Your task to perform on an android device: turn on bluetooth scan Image 0: 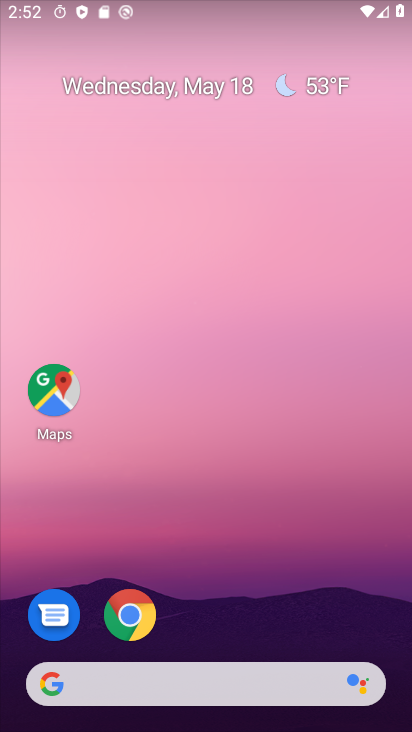
Step 0: drag from (200, 645) to (281, 205)
Your task to perform on an android device: turn on bluetooth scan Image 1: 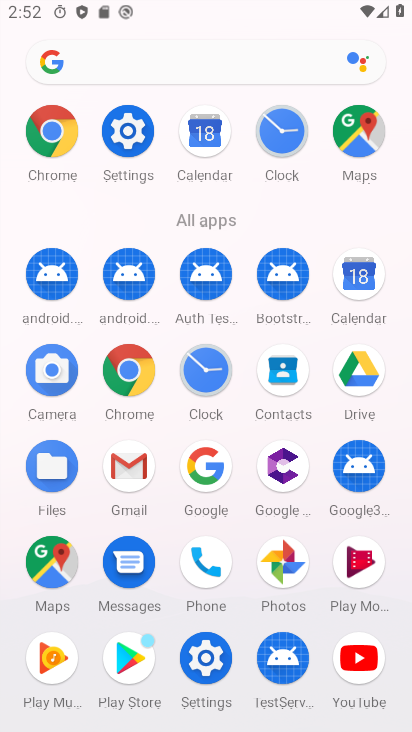
Step 1: click (207, 668)
Your task to perform on an android device: turn on bluetooth scan Image 2: 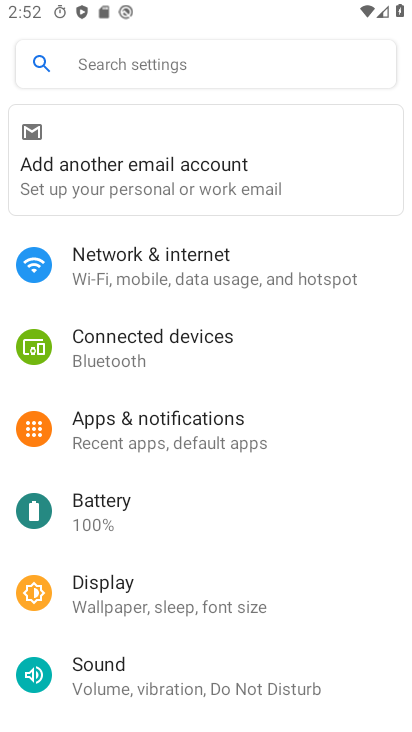
Step 2: click (231, 356)
Your task to perform on an android device: turn on bluetooth scan Image 3: 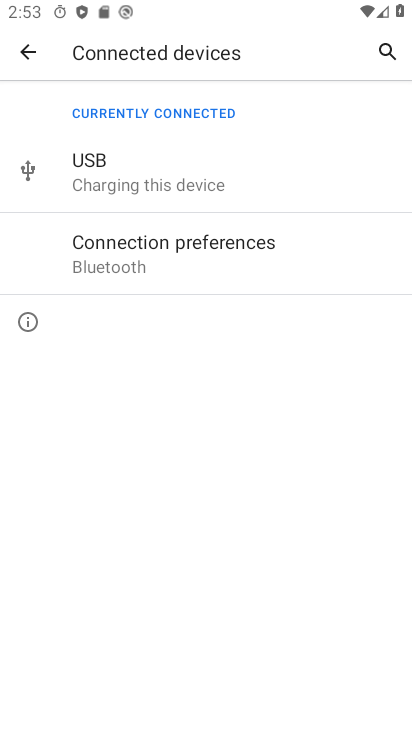
Step 3: click (252, 246)
Your task to perform on an android device: turn on bluetooth scan Image 4: 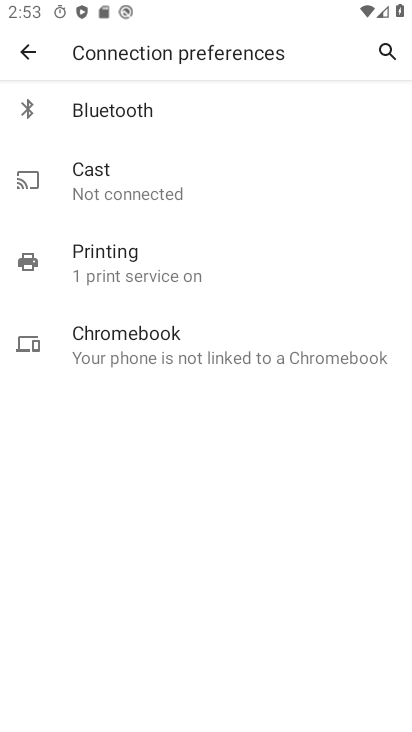
Step 4: click (272, 113)
Your task to perform on an android device: turn on bluetooth scan Image 5: 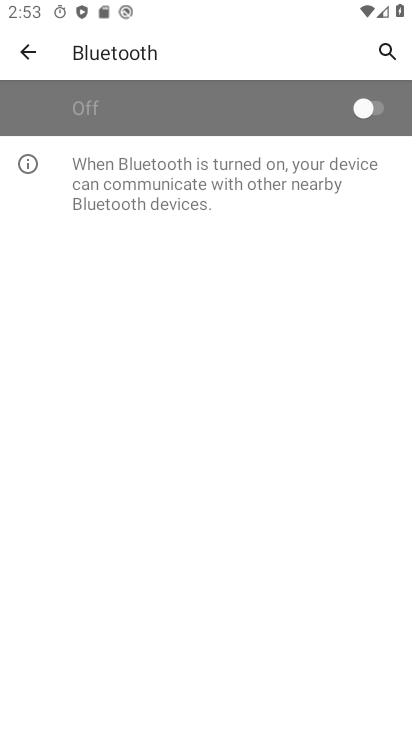
Step 5: click (377, 109)
Your task to perform on an android device: turn on bluetooth scan Image 6: 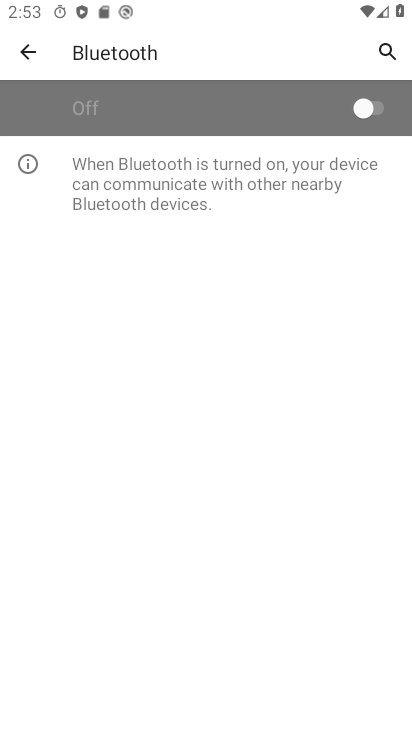
Step 6: click (378, 108)
Your task to perform on an android device: turn on bluetooth scan Image 7: 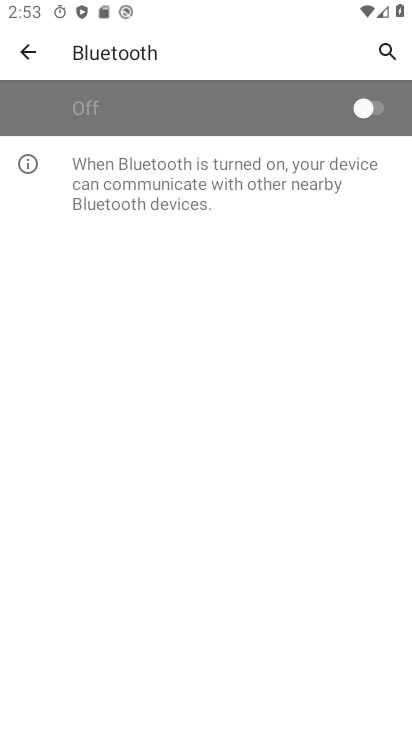
Step 7: click (382, 104)
Your task to perform on an android device: turn on bluetooth scan Image 8: 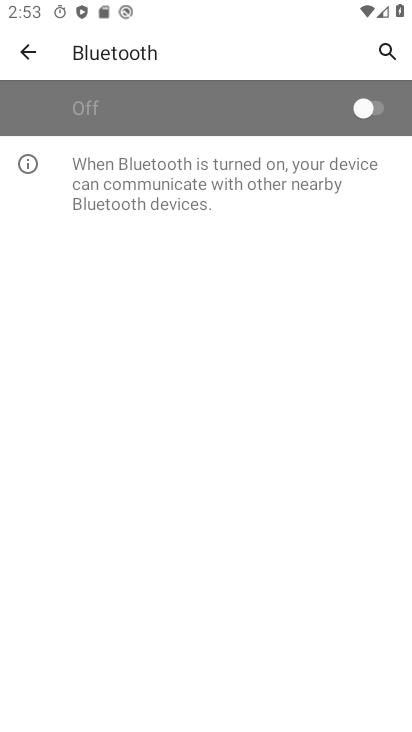
Step 8: task complete